Your task to perform on an android device: Open ESPN.com Image 0: 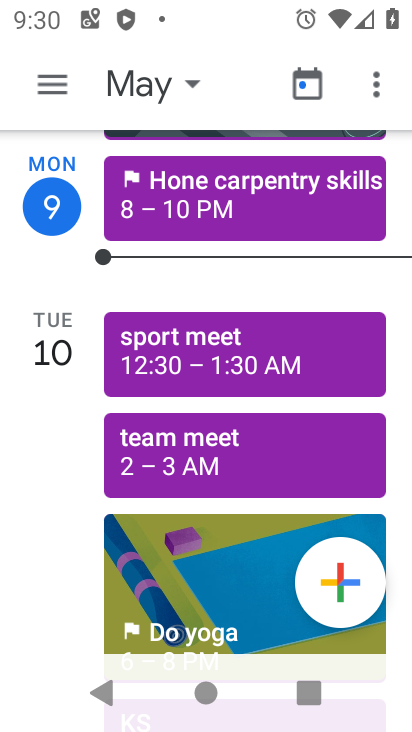
Step 0: press back button
Your task to perform on an android device: Open ESPN.com Image 1: 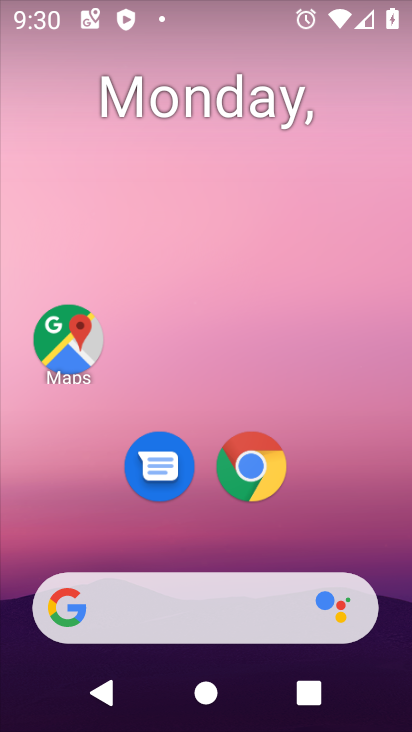
Step 1: drag from (344, 547) to (283, 0)
Your task to perform on an android device: Open ESPN.com Image 2: 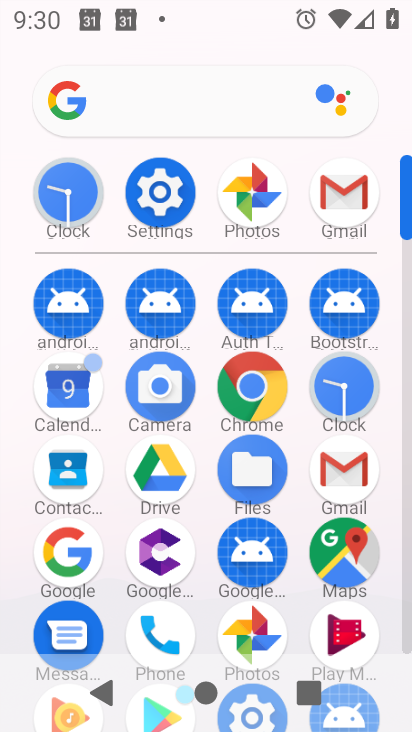
Step 2: drag from (300, 557) to (315, 147)
Your task to perform on an android device: Open ESPN.com Image 3: 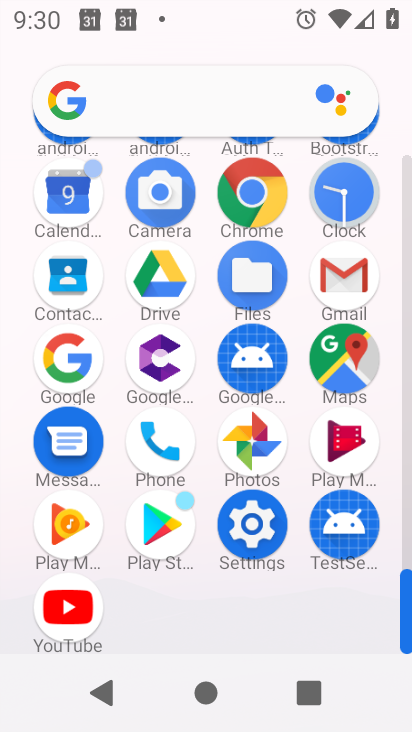
Step 3: click (252, 187)
Your task to perform on an android device: Open ESPN.com Image 4: 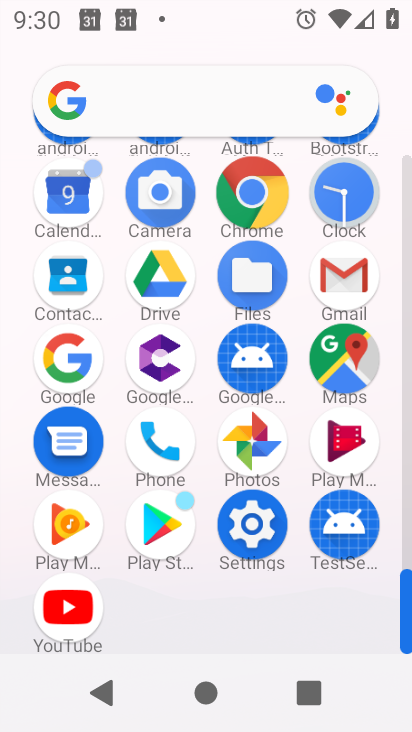
Step 4: click (252, 187)
Your task to perform on an android device: Open ESPN.com Image 5: 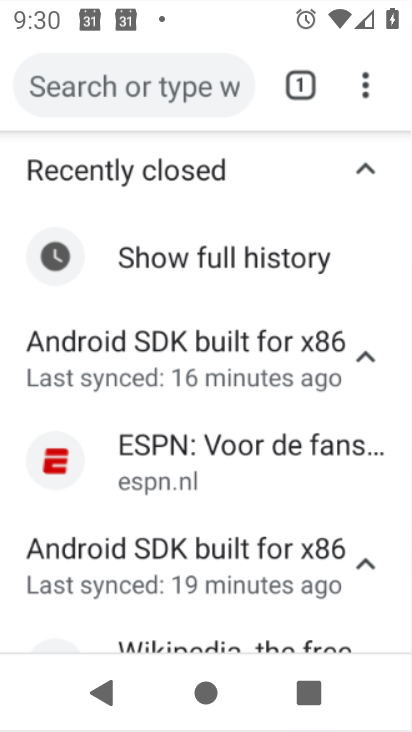
Step 5: click (254, 188)
Your task to perform on an android device: Open ESPN.com Image 6: 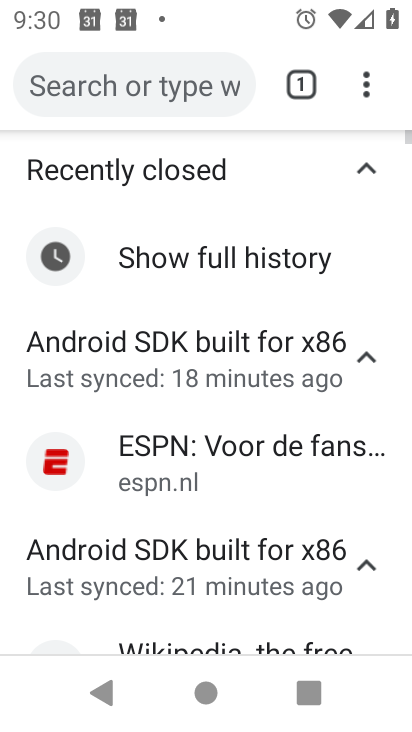
Step 6: drag from (367, 82) to (79, 164)
Your task to perform on an android device: Open ESPN.com Image 7: 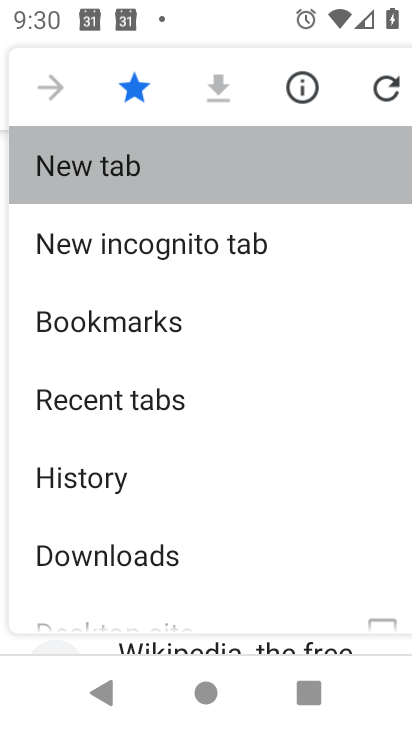
Step 7: click (79, 164)
Your task to perform on an android device: Open ESPN.com Image 8: 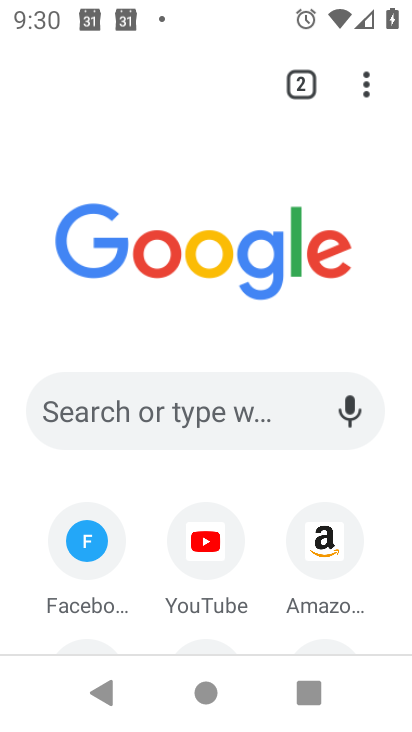
Step 8: drag from (282, 546) to (234, 46)
Your task to perform on an android device: Open ESPN.com Image 9: 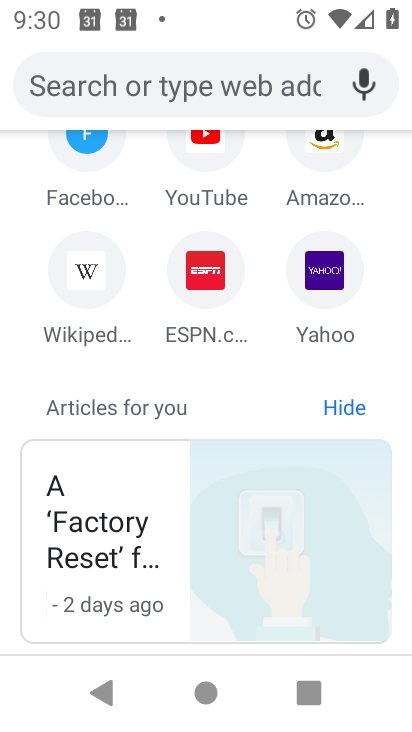
Step 9: drag from (255, 428) to (233, 92)
Your task to perform on an android device: Open ESPN.com Image 10: 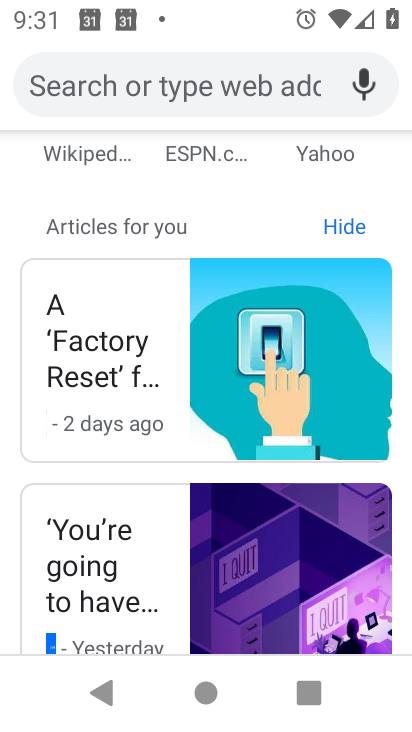
Step 10: drag from (228, 230) to (295, 554)
Your task to perform on an android device: Open ESPN.com Image 11: 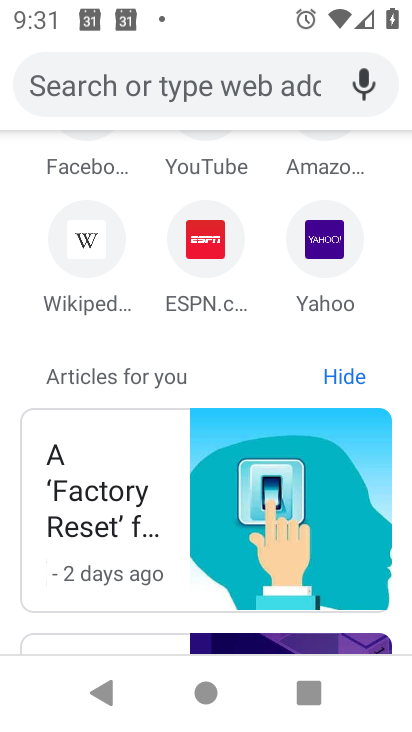
Step 11: click (199, 259)
Your task to perform on an android device: Open ESPN.com Image 12: 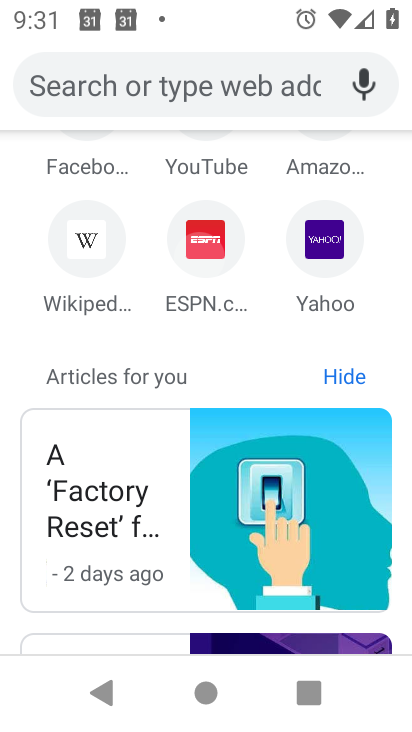
Step 12: click (199, 259)
Your task to perform on an android device: Open ESPN.com Image 13: 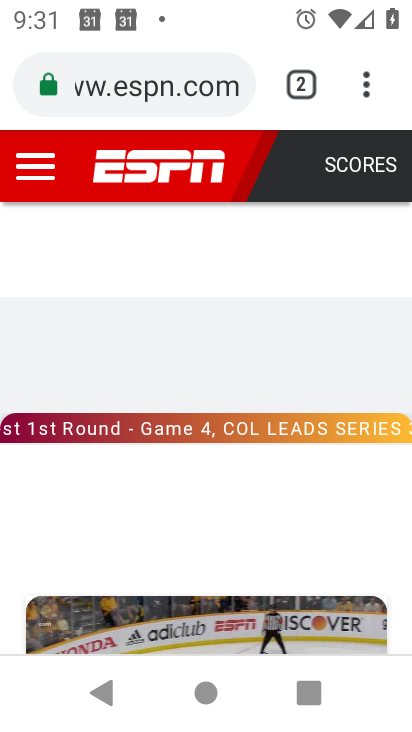
Step 13: task complete